Your task to perform on an android device: allow notifications from all sites in the chrome app Image 0: 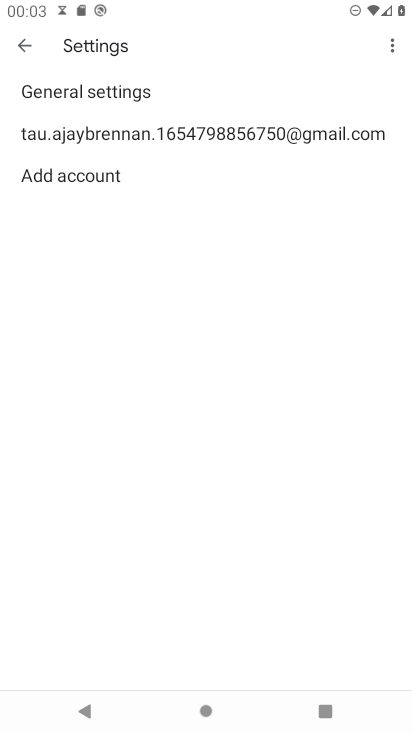
Step 0: press home button
Your task to perform on an android device: allow notifications from all sites in the chrome app Image 1: 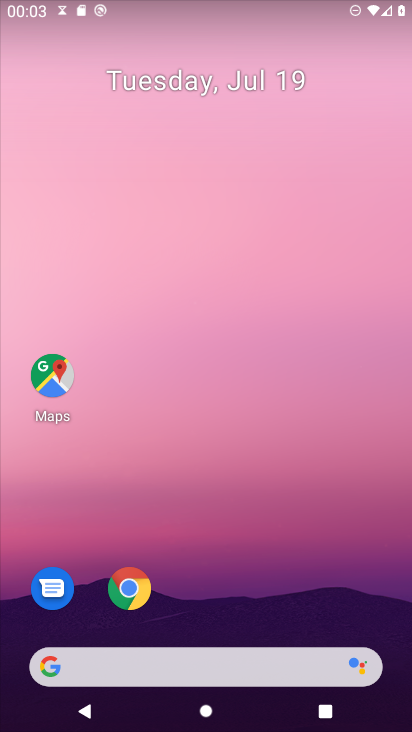
Step 1: click (141, 583)
Your task to perform on an android device: allow notifications from all sites in the chrome app Image 2: 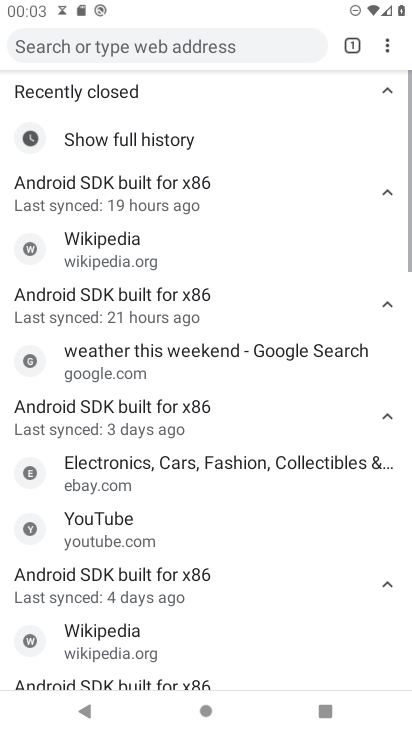
Step 2: drag from (386, 49) to (257, 386)
Your task to perform on an android device: allow notifications from all sites in the chrome app Image 3: 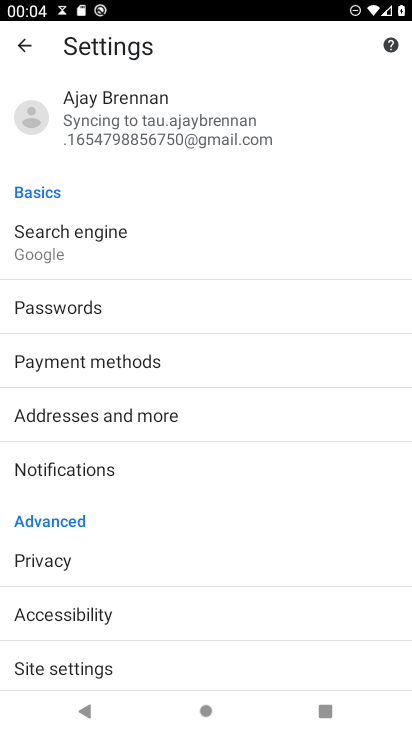
Step 3: drag from (176, 519) to (187, 242)
Your task to perform on an android device: allow notifications from all sites in the chrome app Image 4: 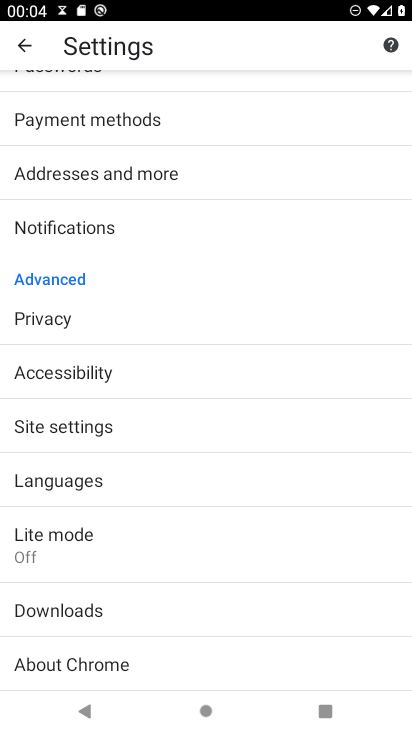
Step 4: click (83, 222)
Your task to perform on an android device: allow notifications from all sites in the chrome app Image 5: 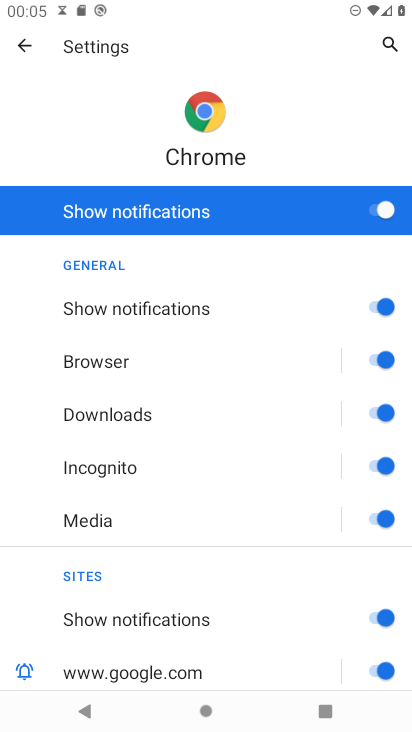
Step 5: task complete